Your task to perform on an android device: Open Maps and search for coffee Image 0: 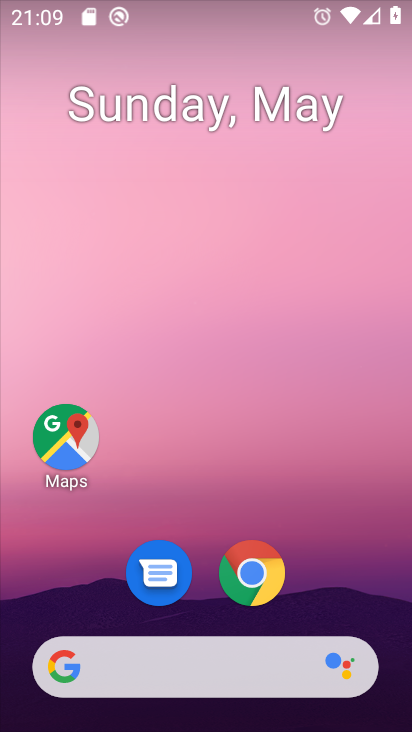
Step 0: click (59, 441)
Your task to perform on an android device: Open Maps and search for coffee Image 1: 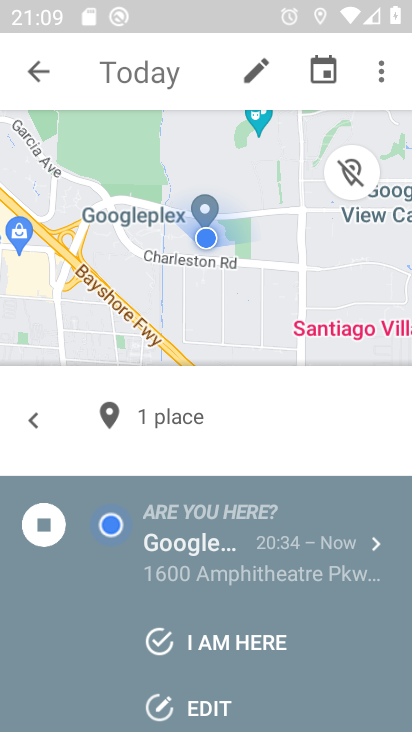
Step 1: click (31, 58)
Your task to perform on an android device: Open Maps and search for coffee Image 2: 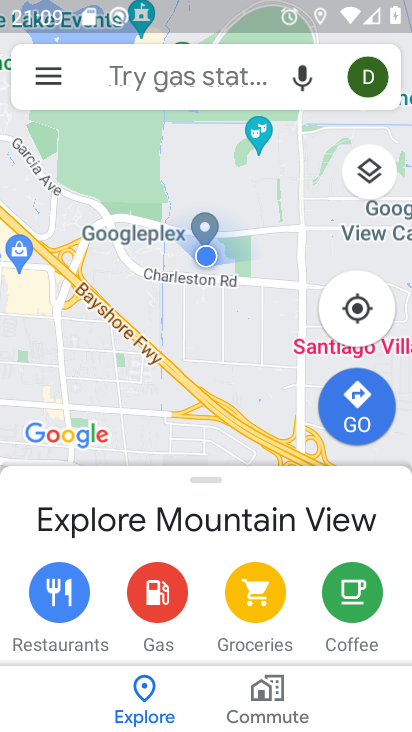
Step 2: click (162, 79)
Your task to perform on an android device: Open Maps and search for coffee Image 3: 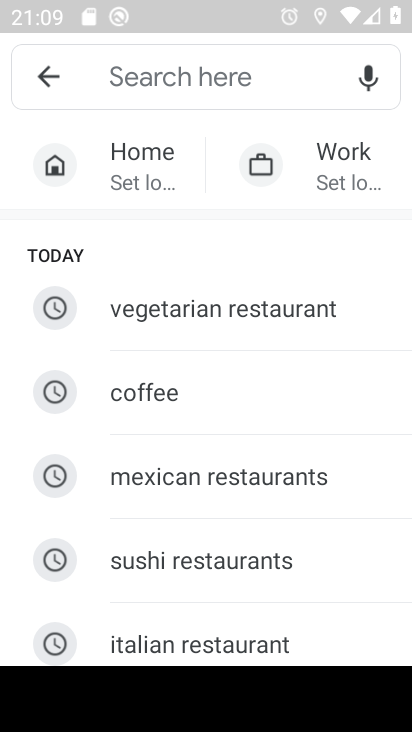
Step 3: click (161, 387)
Your task to perform on an android device: Open Maps and search for coffee Image 4: 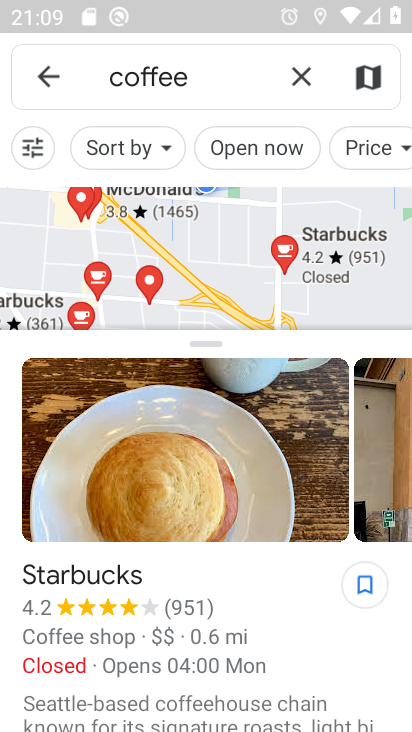
Step 4: task complete